Your task to perform on an android device: Open privacy settings Image 0: 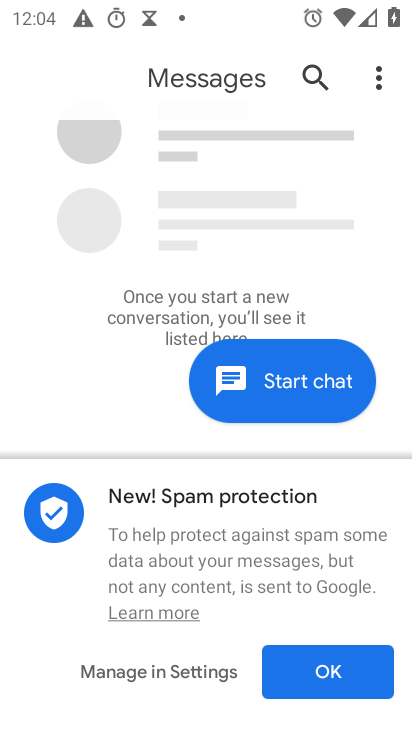
Step 0: press home button
Your task to perform on an android device: Open privacy settings Image 1: 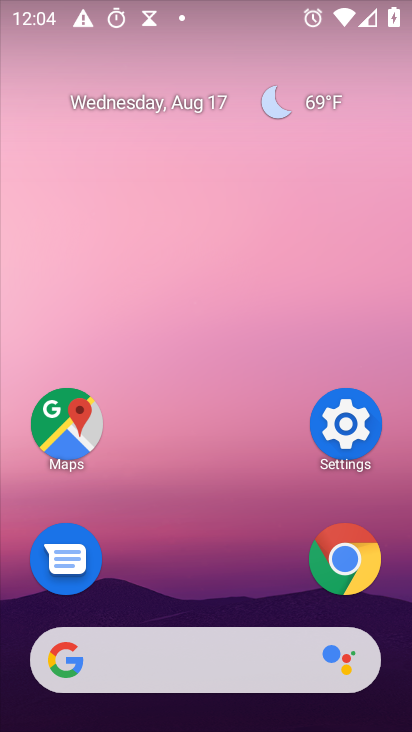
Step 1: click (342, 431)
Your task to perform on an android device: Open privacy settings Image 2: 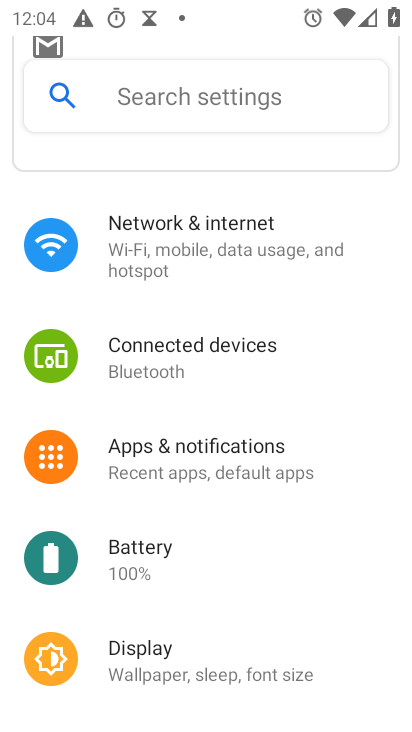
Step 2: drag from (267, 617) to (402, 156)
Your task to perform on an android device: Open privacy settings Image 3: 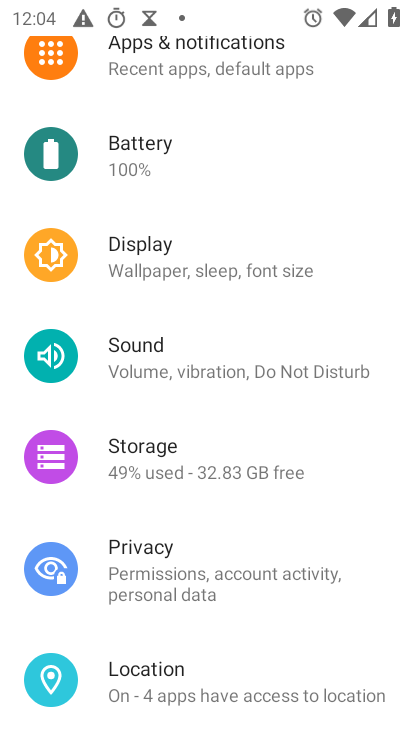
Step 3: click (139, 570)
Your task to perform on an android device: Open privacy settings Image 4: 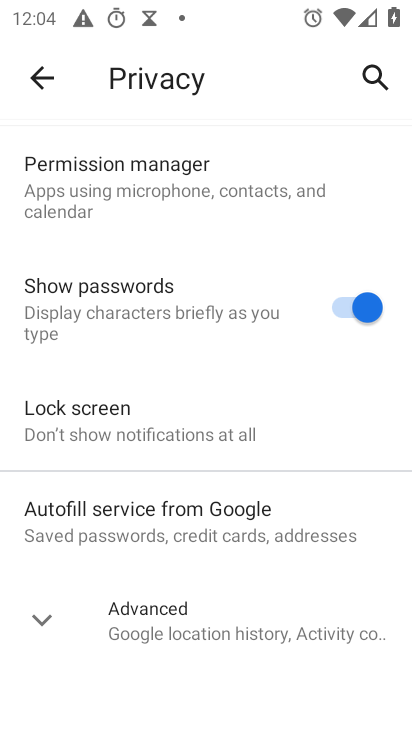
Step 4: task complete